Your task to perform on an android device: Search for seafood restaurants on Google Maps Image 0: 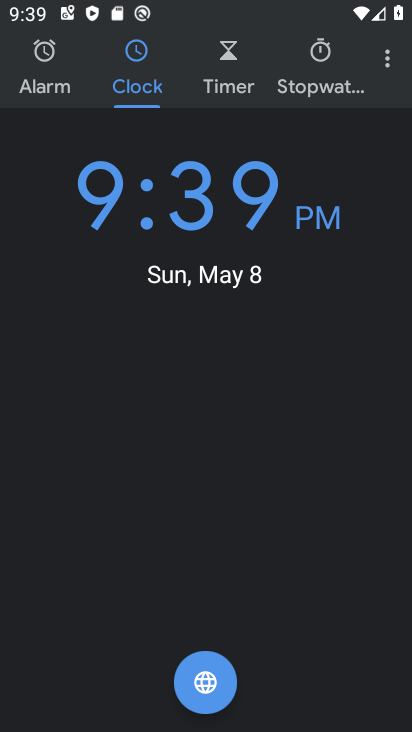
Step 0: press back button
Your task to perform on an android device: Search for seafood restaurants on Google Maps Image 1: 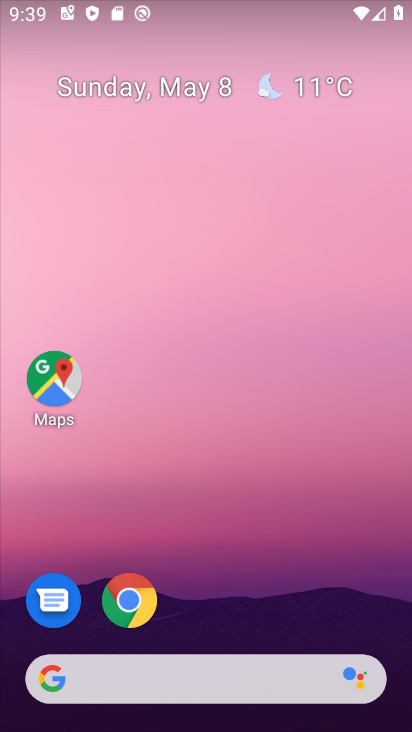
Step 1: drag from (278, 591) to (227, 16)
Your task to perform on an android device: Search for seafood restaurants on Google Maps Image 2: 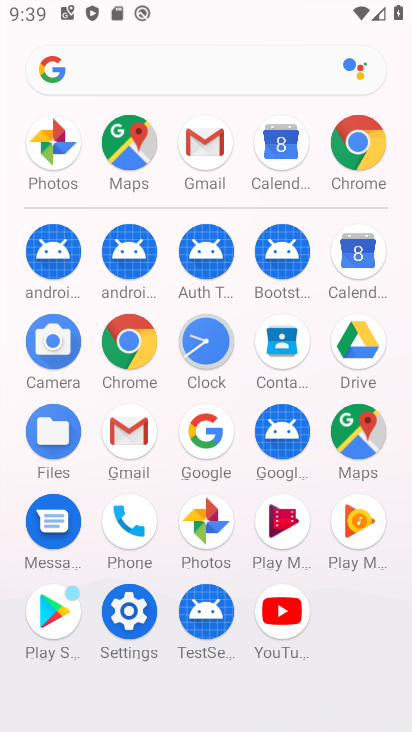
Step 2: click (354, 426)
Your task to perform on an android device: Search for seafood restaurants on Google Maps Image 3: 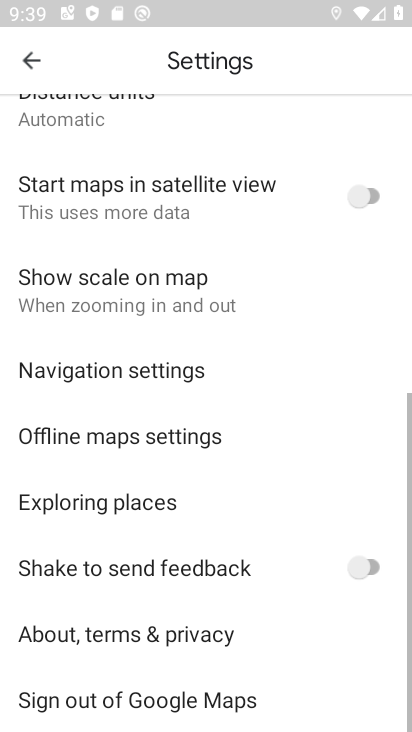
Step 3: click (43, 58)
Your task to perform on an android device: Search for seafood restaurants on Google Maps Image 4: 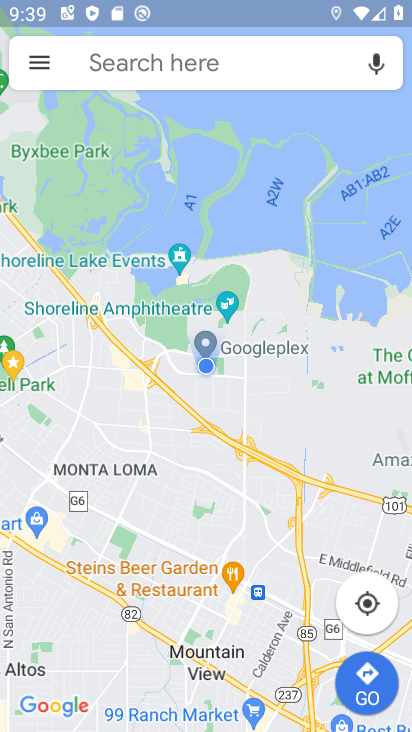
Step 4: click (251, 59)
Your task to perform on an android device: Search for seafood restaurants on Google Maps Image 5: 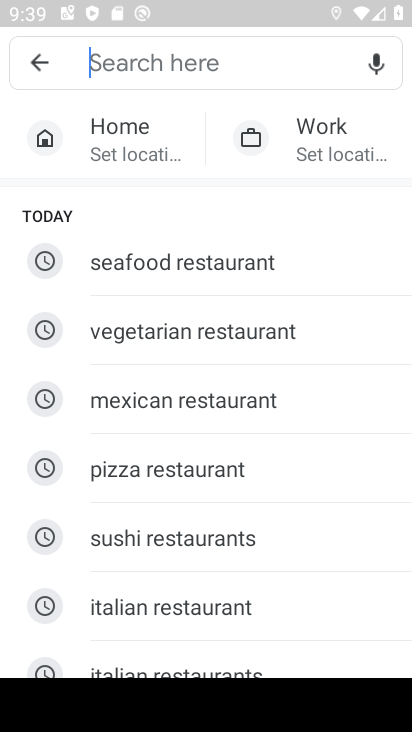
Step 5: click (178, 266)
Your task to perform on an android device: Search for seafood restaurants on Google Maps Image 6: 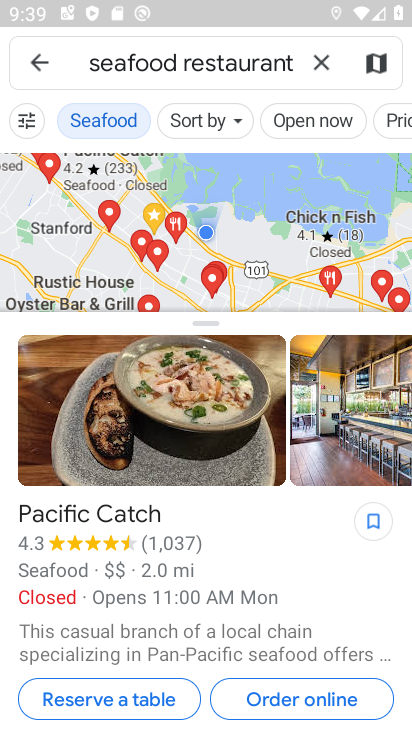
Step 6: task complete